Your task to perform on an android device: Go to accessibility settings Image 0: 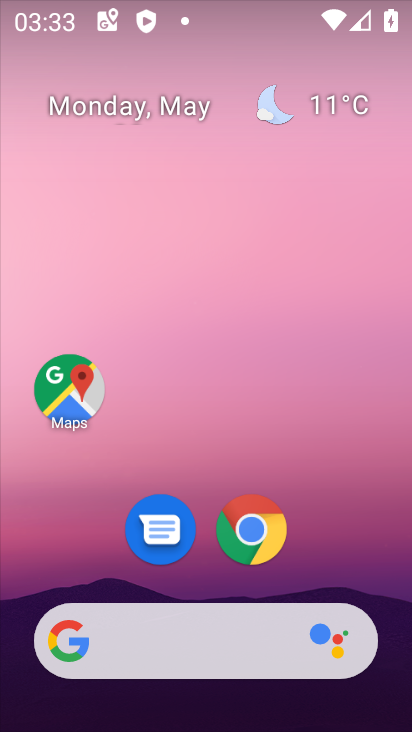
Step 0: drag from (375, 567) to (1, 81)
Your task to perform on an android device: Go to accessibility settings Image 1: 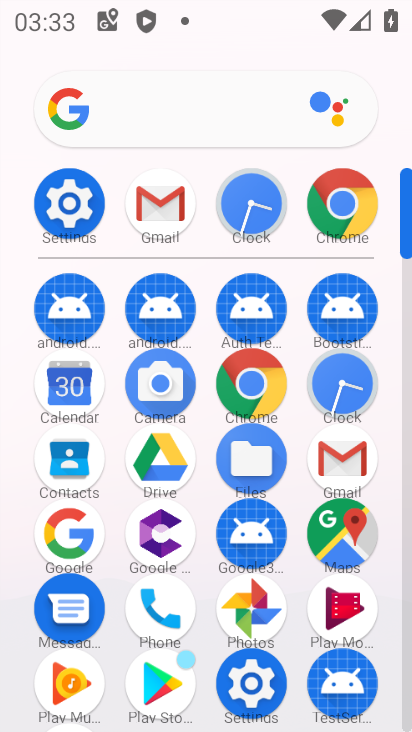
Step 1: click (85, 210)
Your task to perform on an android device: Go to accessibility settings Image 2: 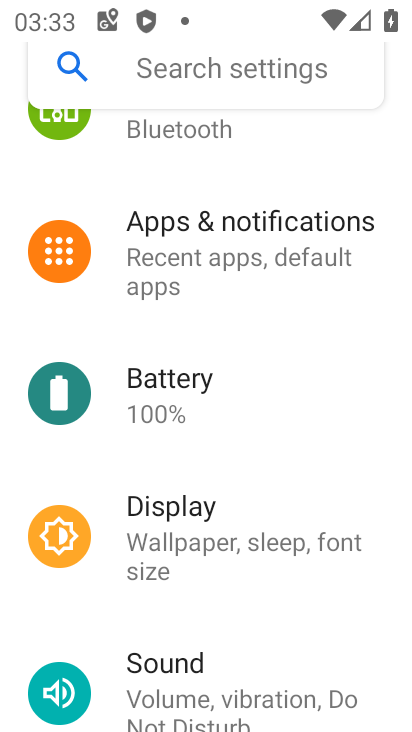
Step 2: drag from (257, 613) to (245, 80)
Your task to perform on an android device: Go to accessibility settings Image 3: 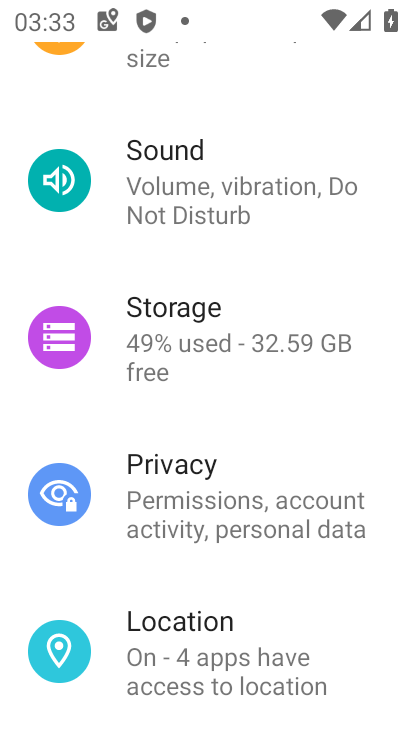
Step 3: drag from (295, 564) to (231, 39)
Your task to perform on an android device: Go to accessibility settings Image 4: 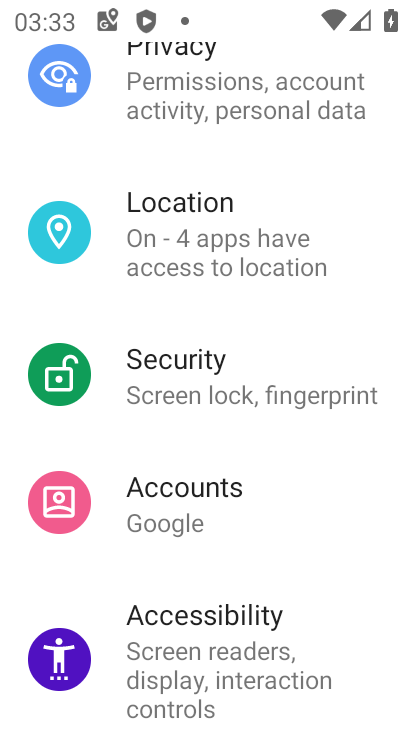
Step 4: drag from (272, 512) to (214, 230)
Your task to perform on an android device: Go to accessibility settings Image 5: 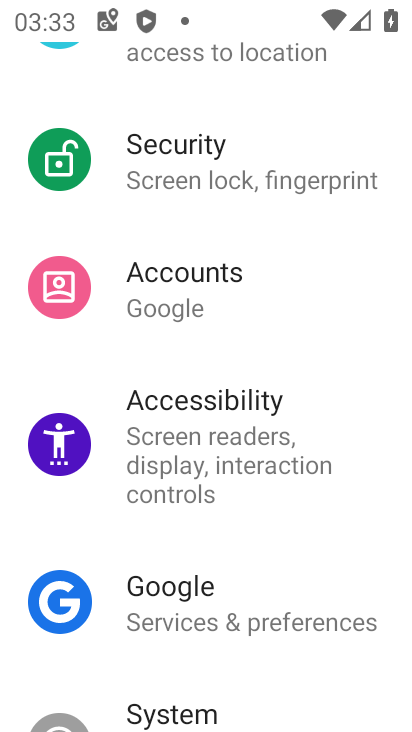
Step 5: click (205, 464)
Your task to perform on an android device: Go to accessibility settings Image 6: 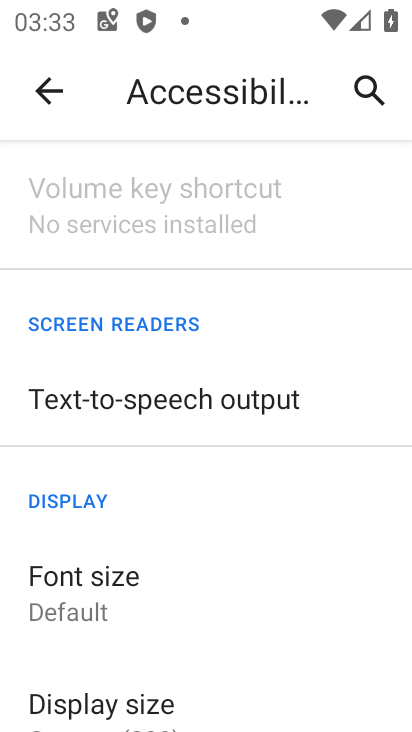
Step 6: task complete